Your task to perform on an android device: Open the stopwatch Image 0: 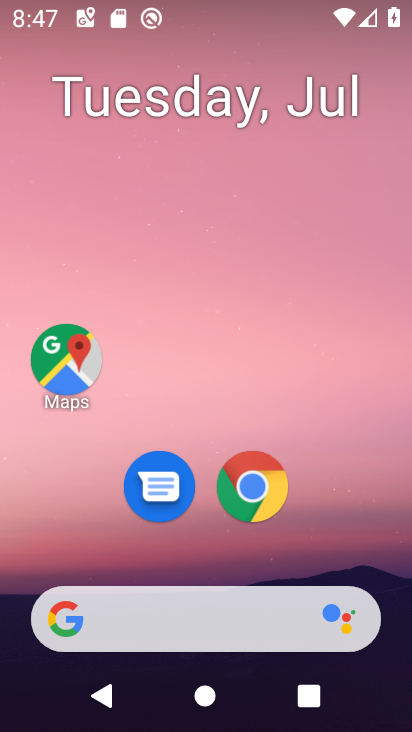
Step 0: drag from (268, 497) to (251, 124)
Your task to perform on an android device: Open the stopwatch Image 1: 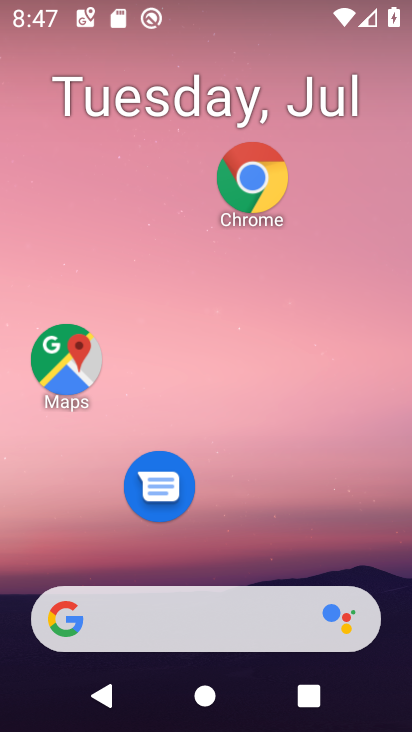
Step 1: drag from (283, 594) to (351, 136)
Your task to perform on an android device: Open the stopwatch Image 2: 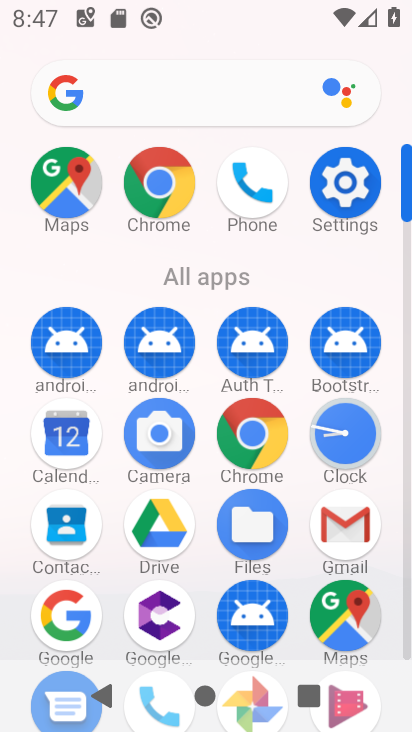
Step 2: click (354, 444)
Your task to perform on an android device: Open the stopwatch Image 3: 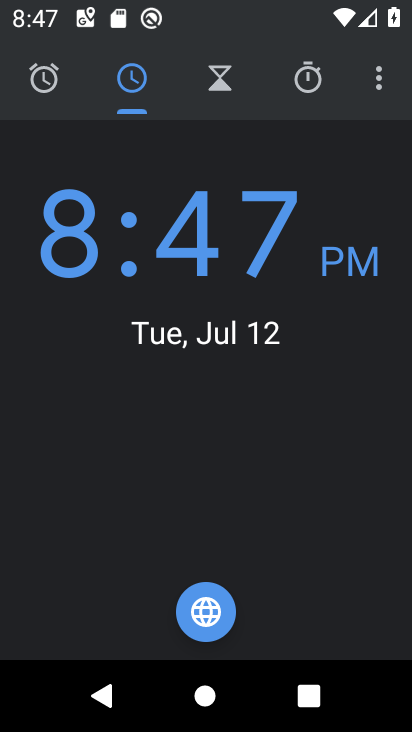
Step 3: click (310, 101)
Your task to perform on an android device: Open the stopwatch Image 4: 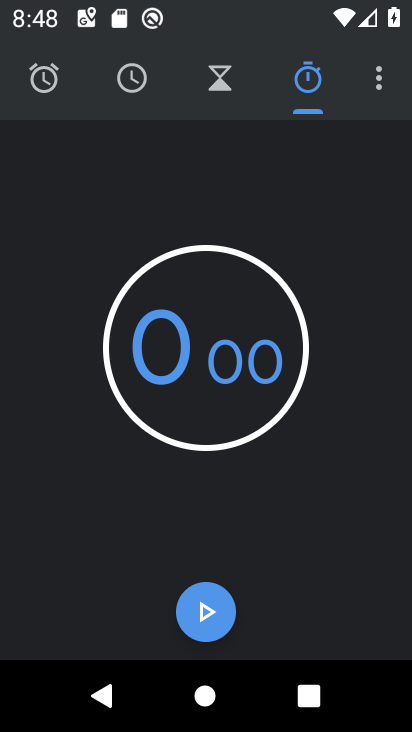
Step 4: task complete